Your task to perform on an android device: move an email to a new category in the gmail app Image 0: 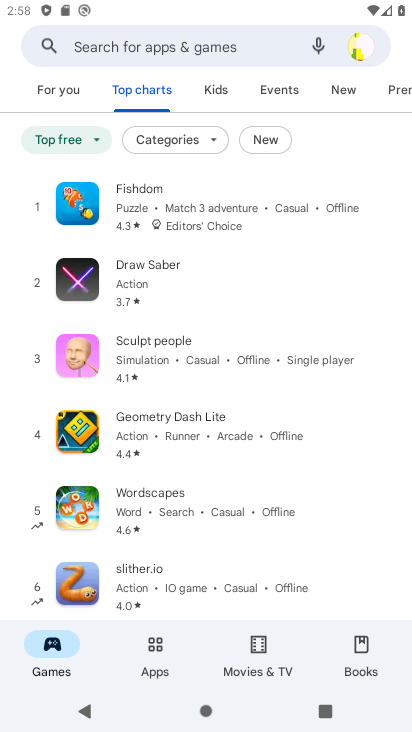
Step 0: press home button
Your task to perform on an android device: move an email to a new category in the gmail app Image 1: 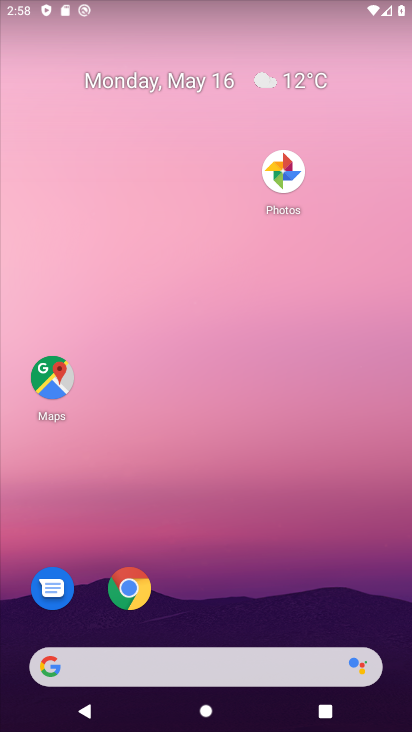
Step 1: drag from (191, 623) to (195, 30)
Your task to perform on an android device: move an email to a new category in the gmail app Image 2: 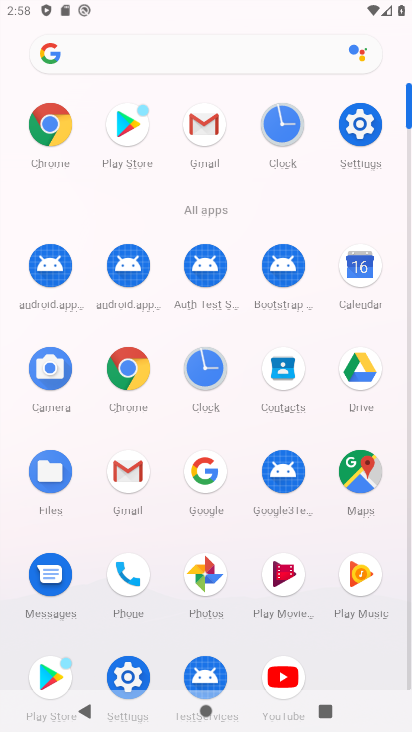
Step 2: click (211, 108)
Your task to perform on an android device: move an email to a new category in the gmail app Image 3: 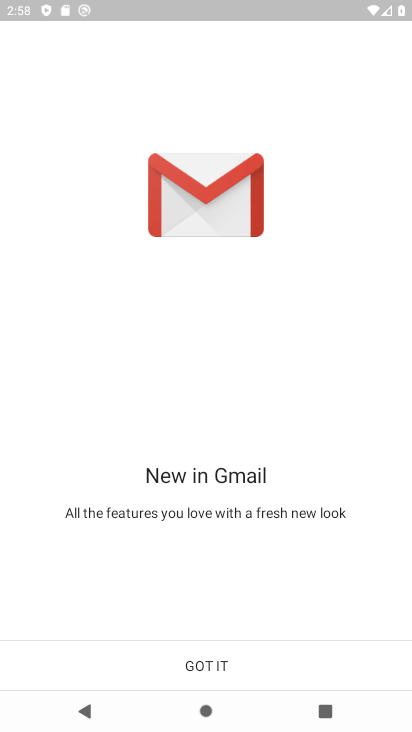
Step 3: click (308, 654)
Your task to perform on an android device: move an email to a new category in the gmail app Image 4: 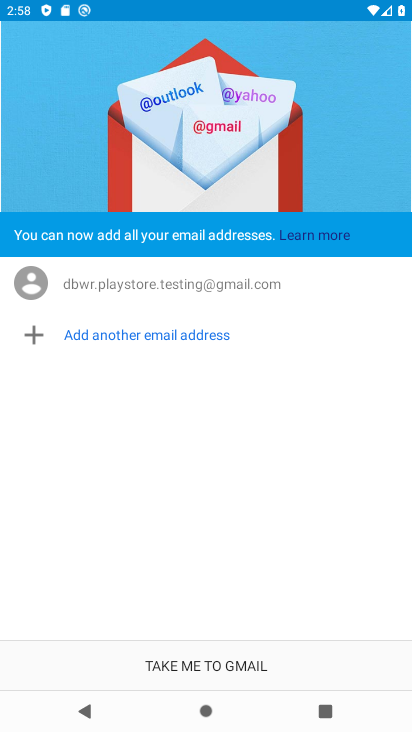
Step 4: click (308, 654)
Your task to perform on an android device: move an email to a new category in the gmail app Image 5: 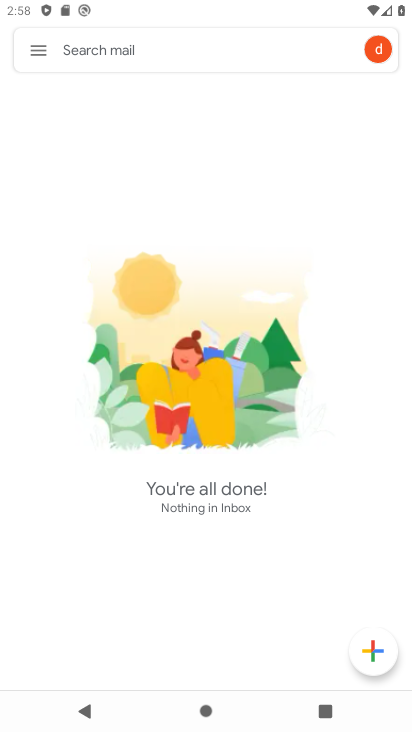
Step 5: task complete